Your task to perform on an android device: What is the recent news? Image 0: 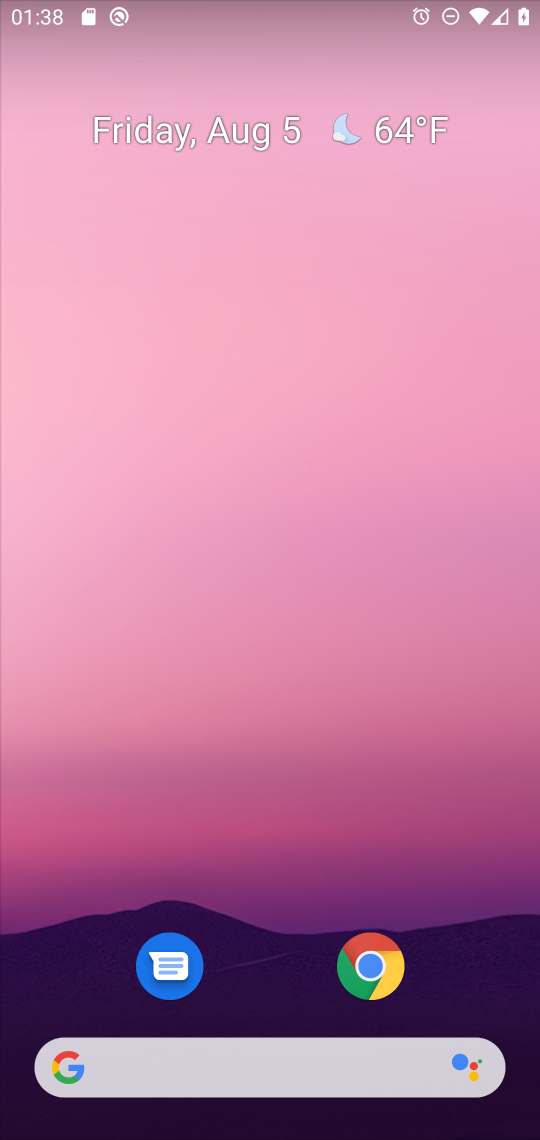
Step 0: click (344, 1046)
Your task to perform on an android device: What is the recent news? Image 1: 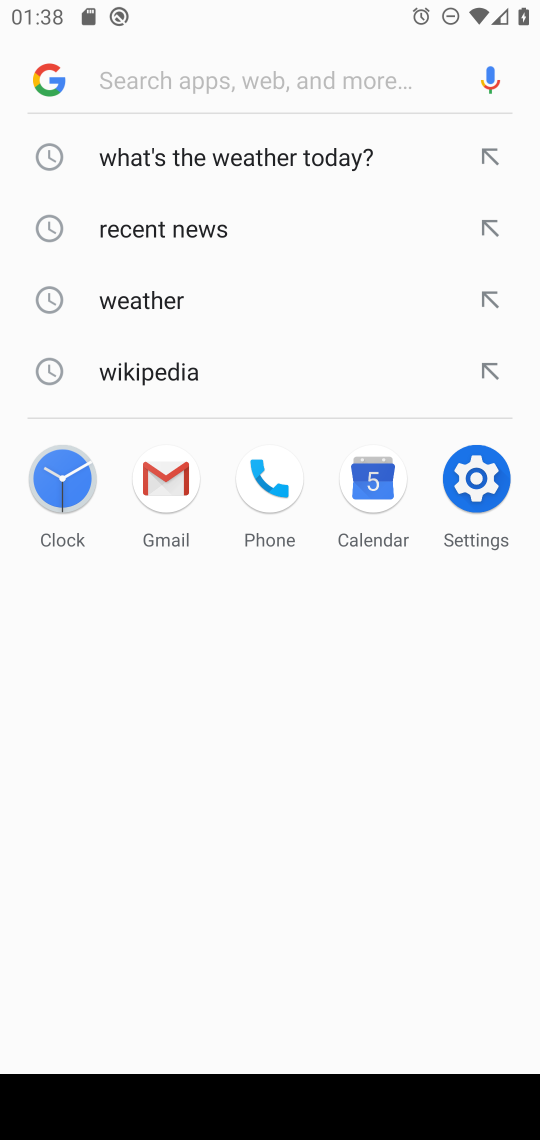
Step 1: click (164, 228)
Your task to perform on an android device: What is the recent news? Image 2: 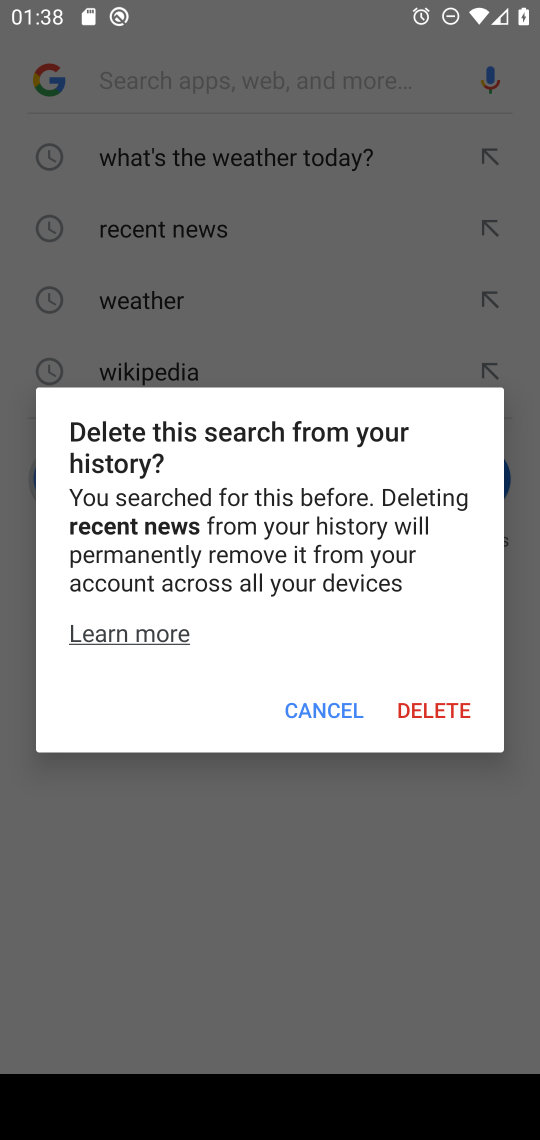
Step 2: click (309, 703)
Your task to perform on an android device: What is the recent news? Image 3: 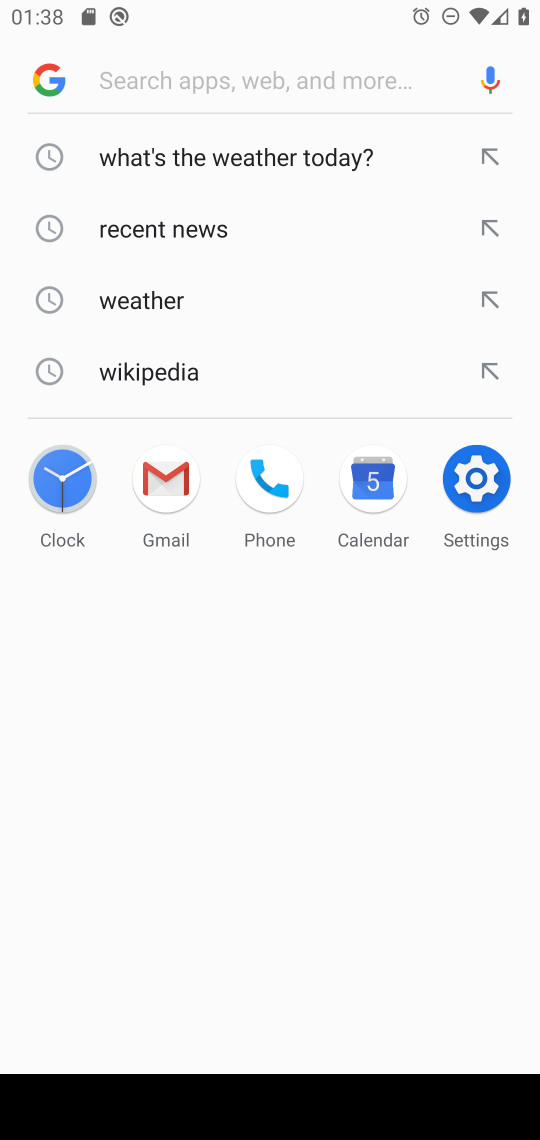
Step 3: click (337, 234)
Your task to perform on an android device: What is the recent news? Image 4: 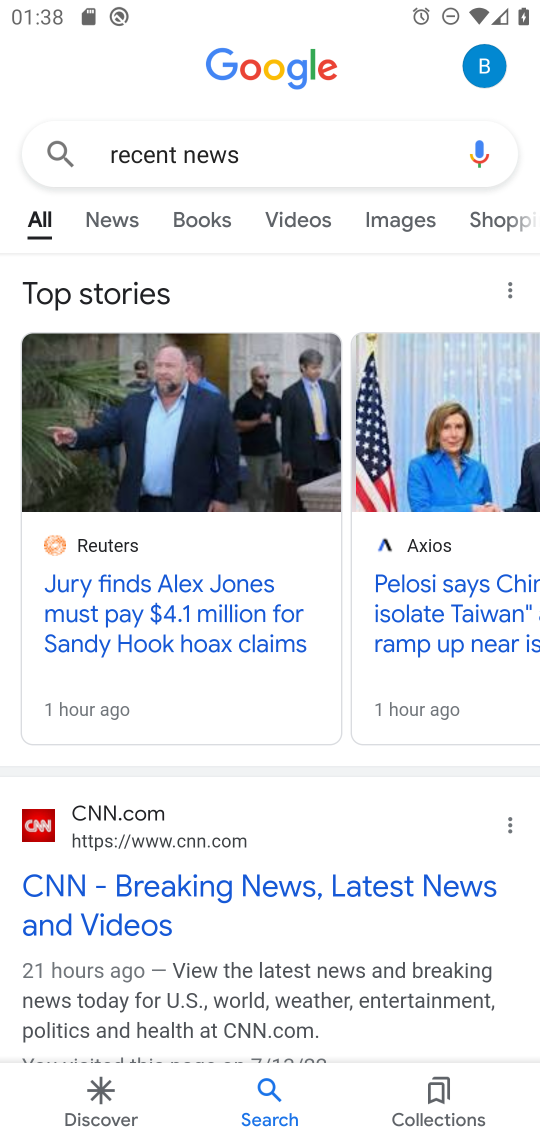
Step 4: task complete